Your task to perform on an android device: open app "LiveIn - Share Your Moment" Image 0: 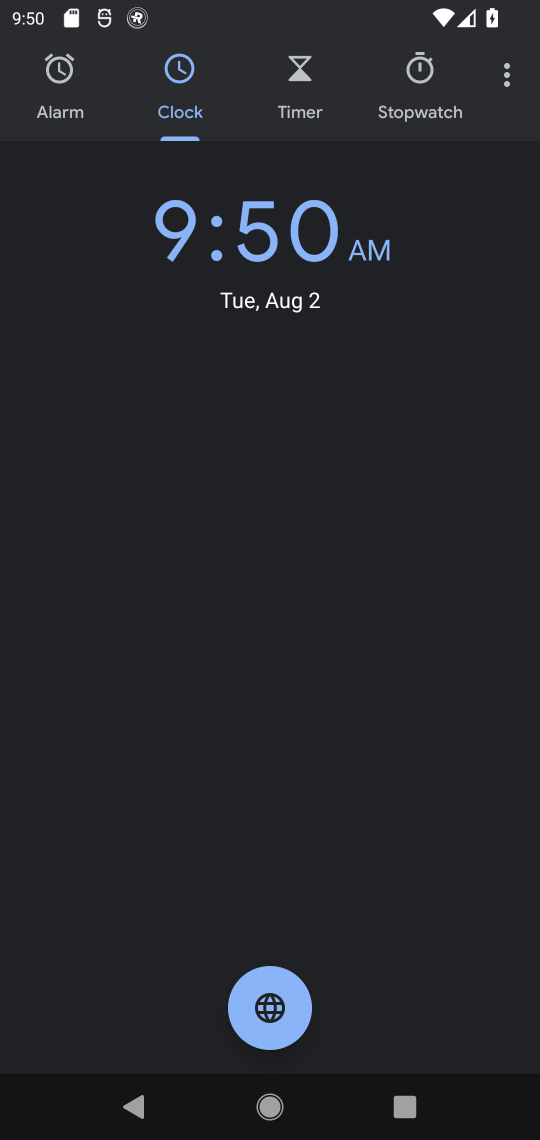
Step 0: press home button
Your task to perform on an android device: open app "LiveIn - Share Your Moment" Image 1: 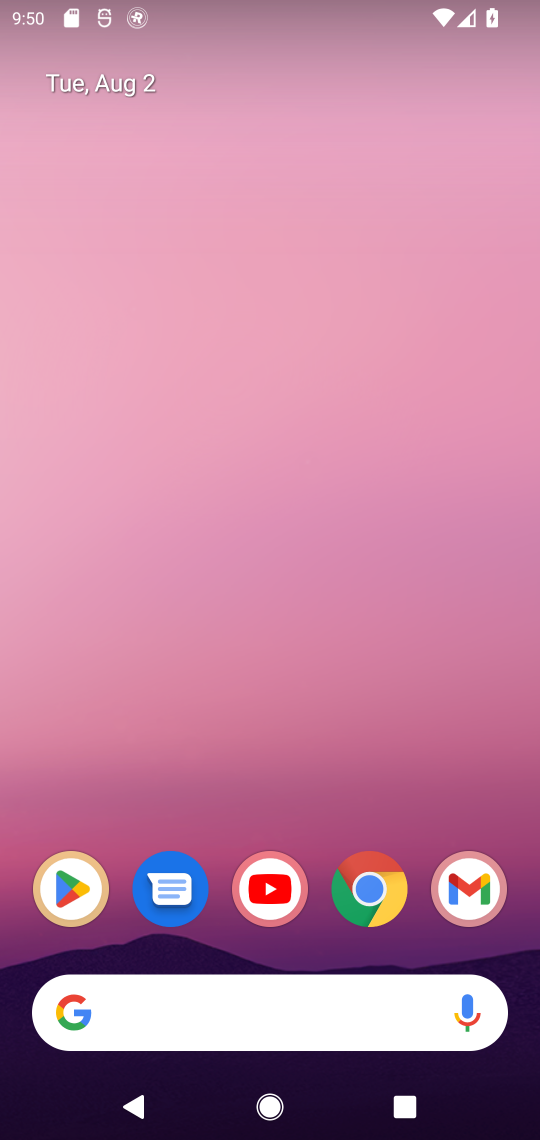
Step 1: click (70, 885)
Your task to perform on an android device: open app "LiveIn - Share Your Moment" Image 2: 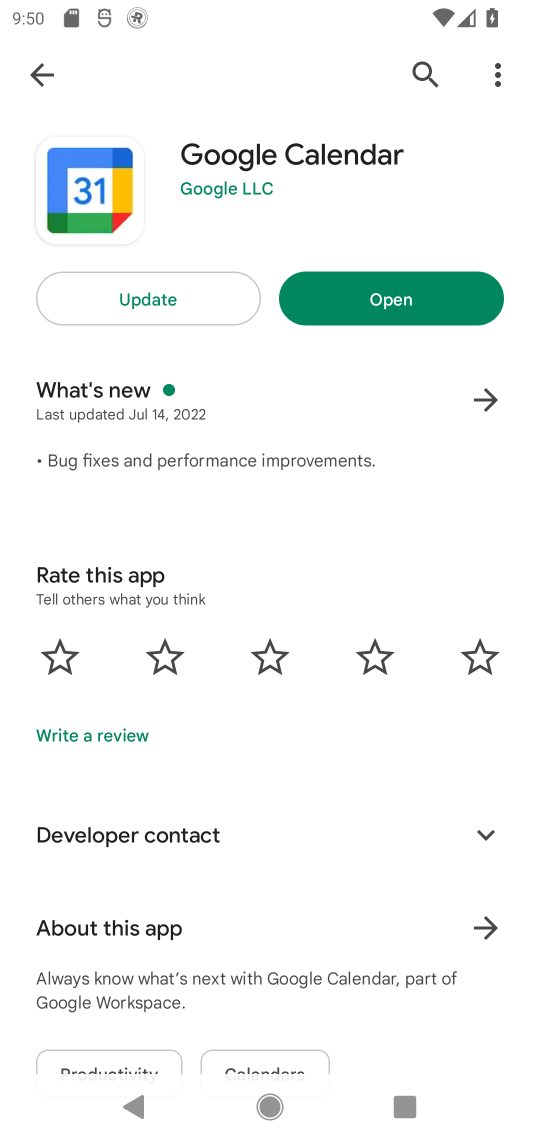
Step 2: click (424, 68)
Your task to perform on an android device: open app "LiveIn - Share Your Moment" Image 3: 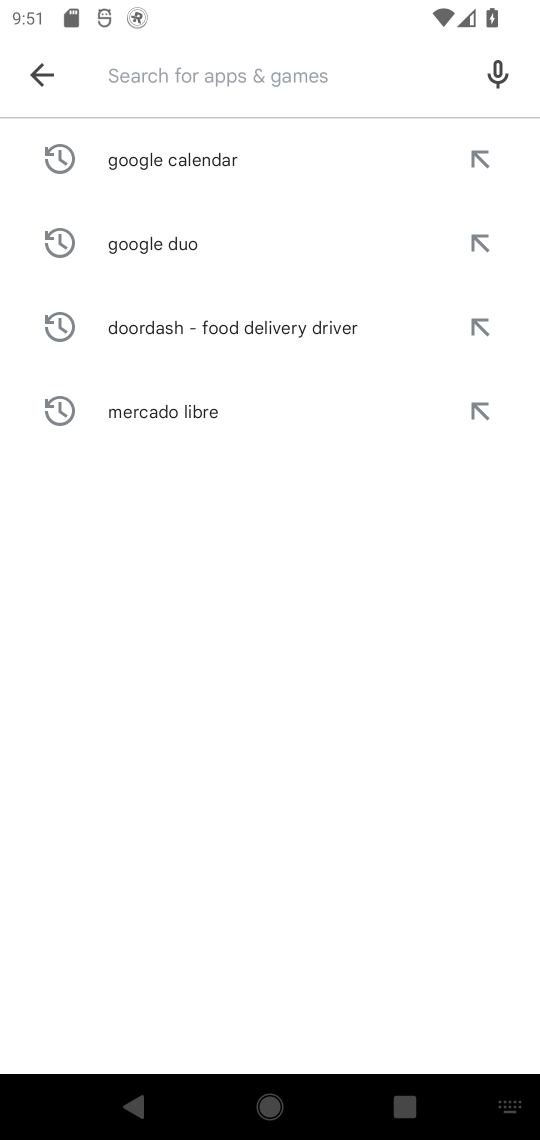
Step 3: type "LiveIn - Share Your Moment"
Your task to perform on an android device: open app "LiveIn - Share Your Moment" Image 4: 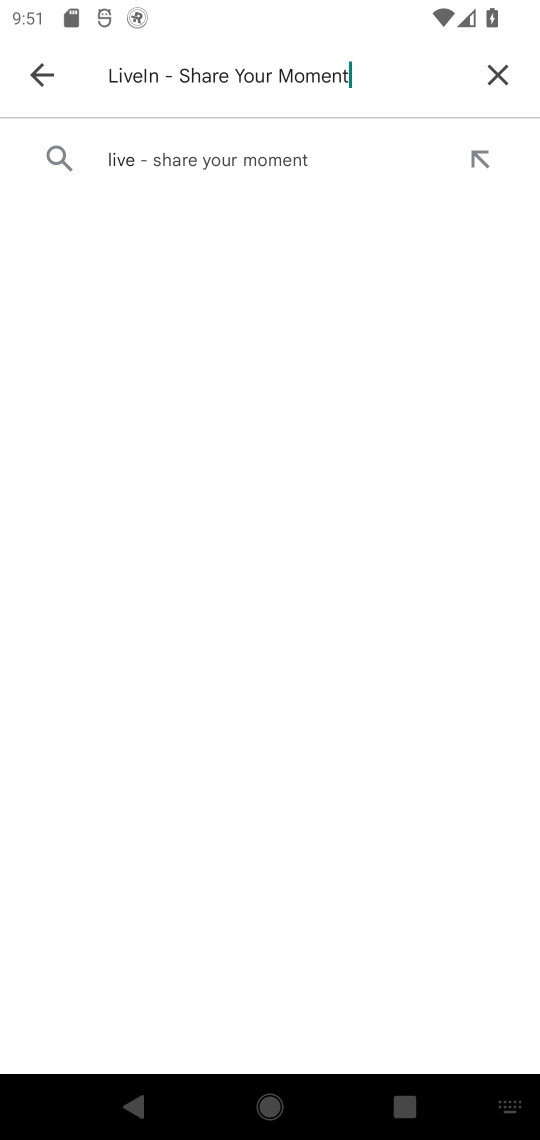
Step 4: click (182, 164)
Your task to perform on an android device: open app "LiveIn - Share Your Moment" Image 5: 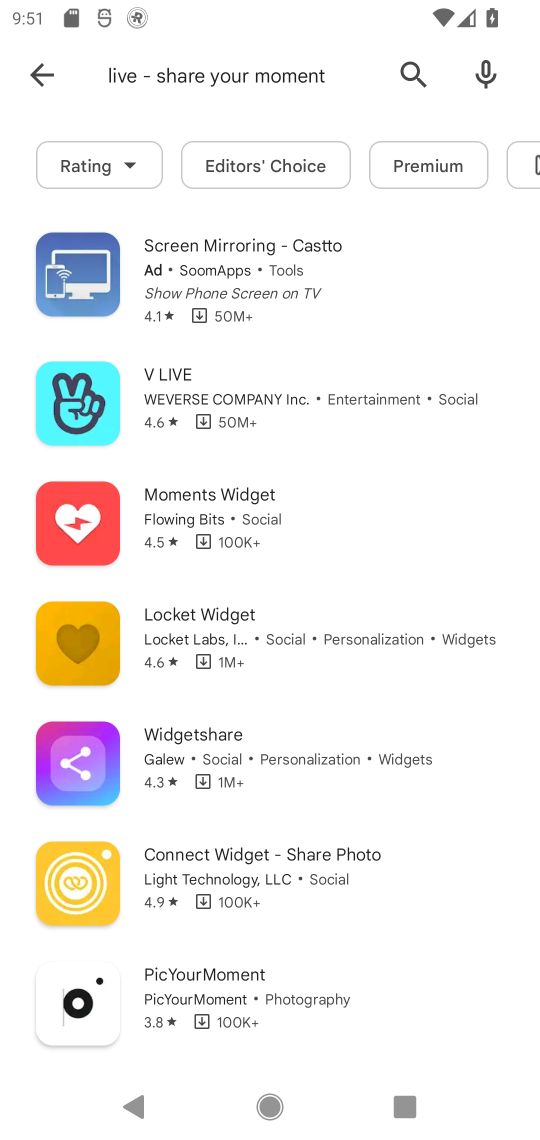
Step 5: task complete